Your task to perform on an android device: Open notification settings Image 0: 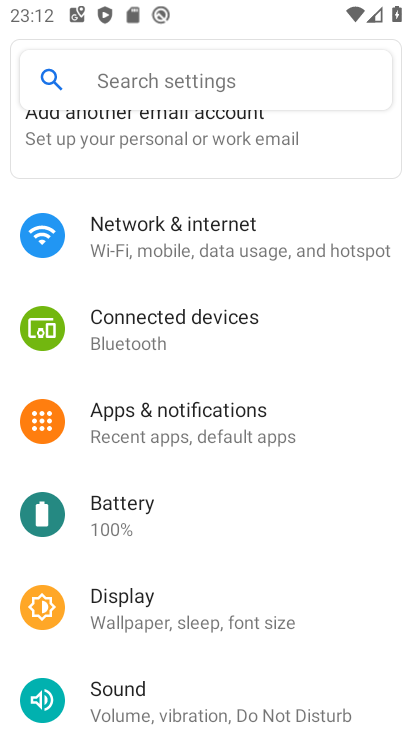
Step 0: click (172, 86)
Your task to perform on an android device: Open notification settings Image 1: 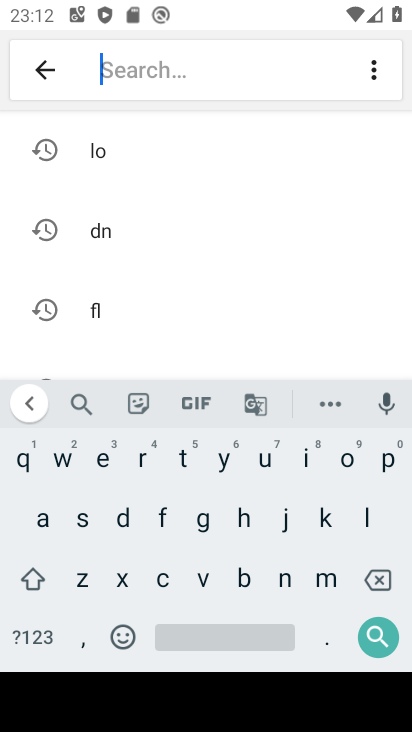
Step 1: click (275, 584)
Your task to perform on an android device: Open notification settings Image 2: 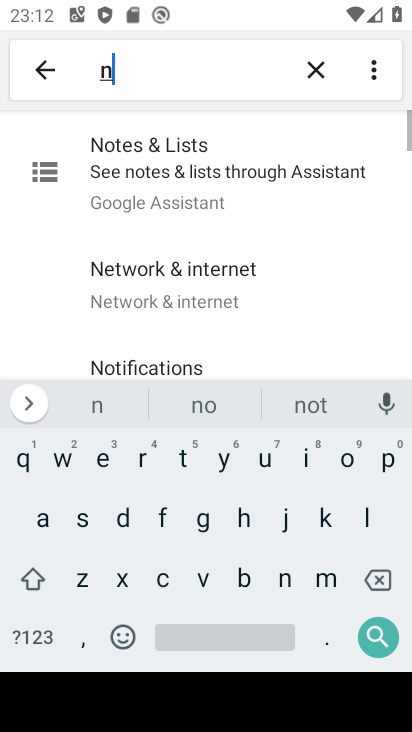
Step 2: click (335, 461)
Your task to perform on an android device: Open notification settings Image 3: 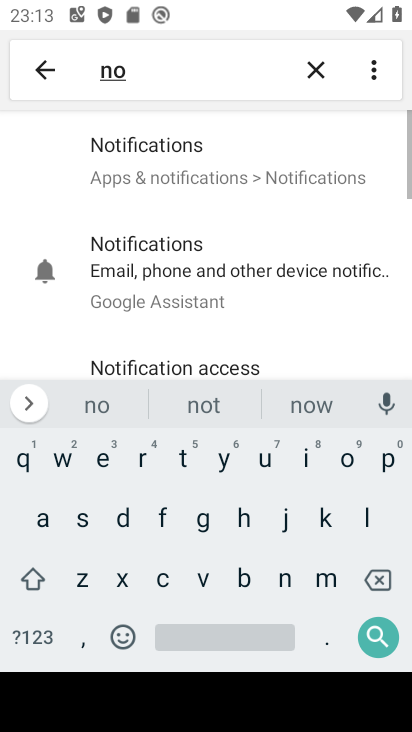
Step 3: click (183, 160)
Your task to perform on an android device: Open notification settings Image 4: 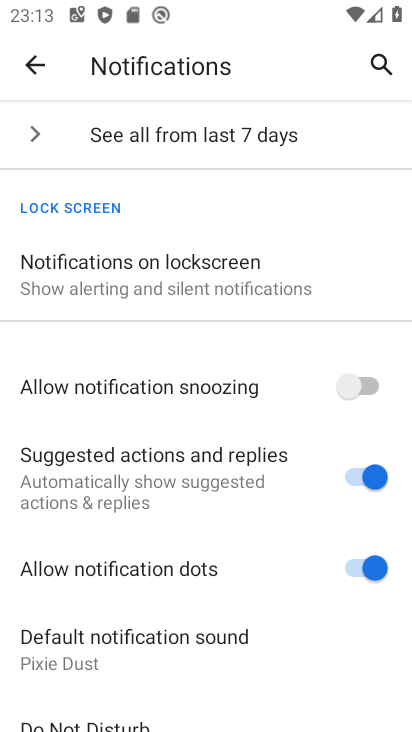
Step 4: click (167, 271)
Your task to perform on an android device: Open notification settings Image 5: 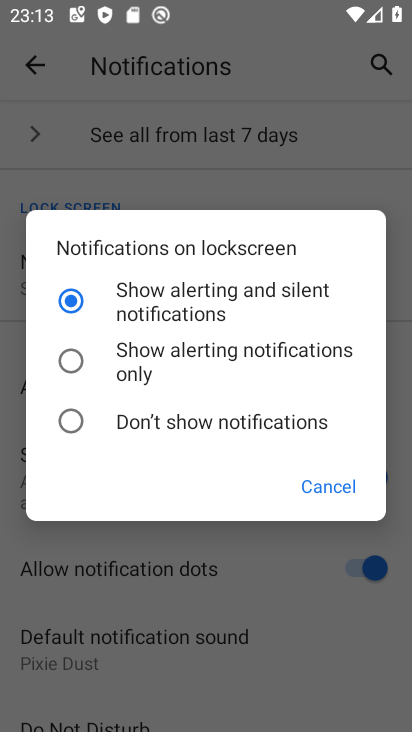
Step 5: task complete